Your task to perform on an android device: Show me the alarms in the clock app Image 0: 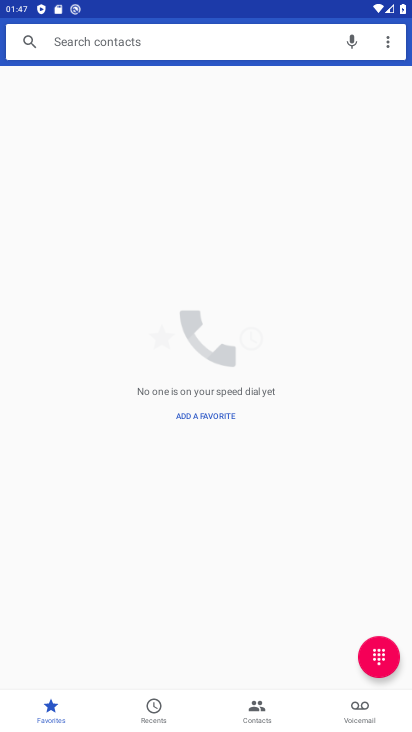
Step 0: press home button
Your task to perform on an android device: Show me the alarms in the clock app Image 1: 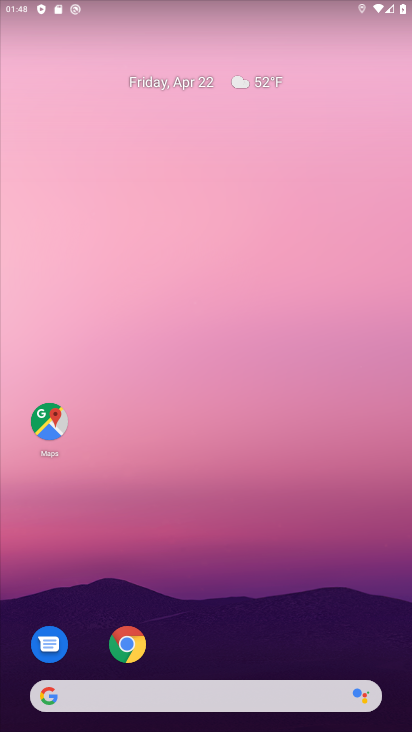
Step 1: drag from (280, 597) to (200, 74)
Your task to perform on an android device: Show me the alarms in the clock app Image 2: 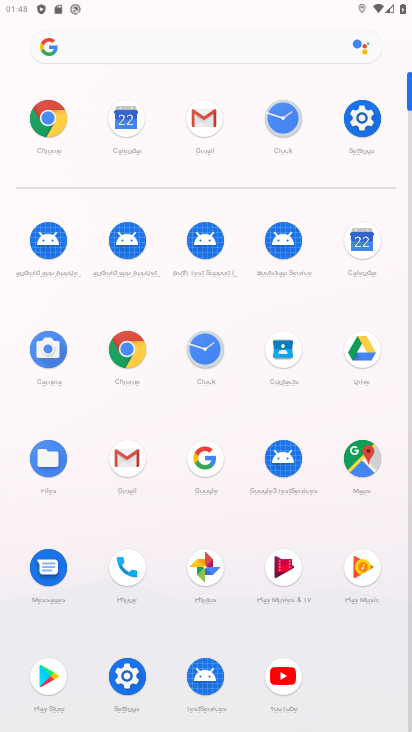
Step 2: click (290, 119)
Your task to perform on an android device: Show me the alarms in the clock app Image 3: 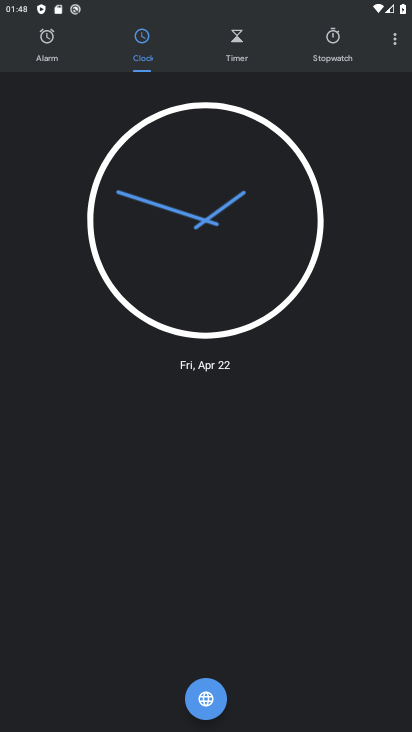
Step 3: click (61, 46)
Your task to perform on an android device: Show me the alarms in the clock app Image 4: 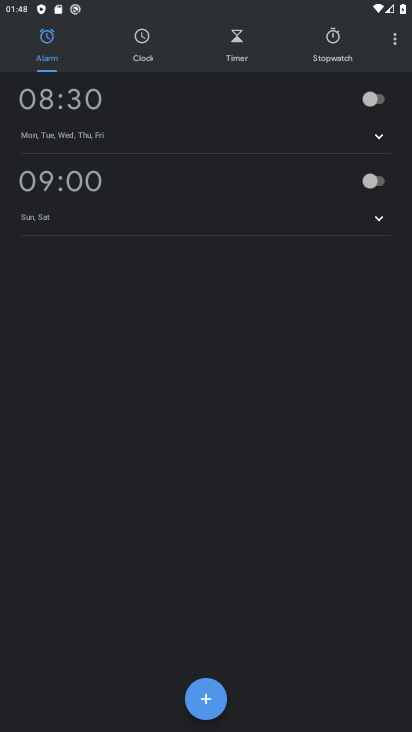
Step 4: task complete